Your task to perform on an android device: add a label to a message in the gmail app Image 0: 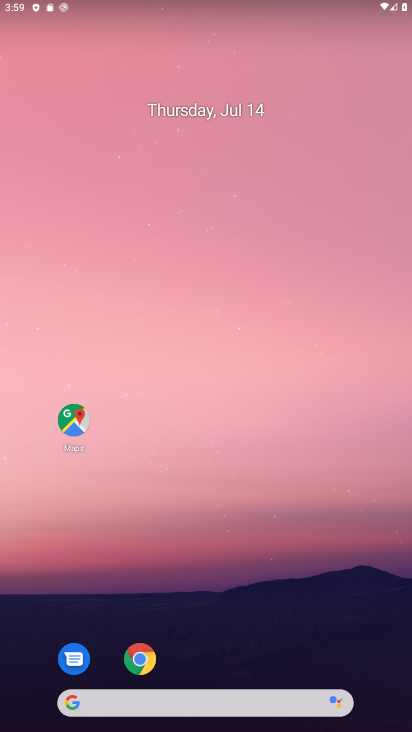
Step 0: drag from (264, 693) to (211, 132)
Your task to perform on an android device: add a label to a message in the gmail app Image 1: 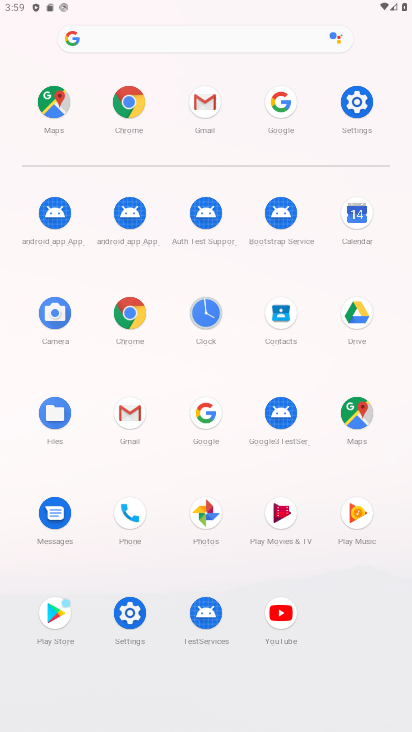
Step 1: click (125, 403)
Your task to perform on an android device: add a label to a message in the gmail app Image 2: 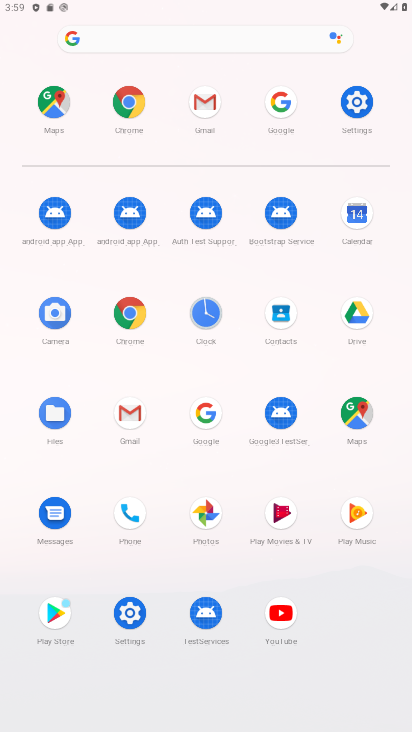
Step 2: click (127, 404)
Your task to perform on an android device: add a label to a message in the gmail app Image 3: 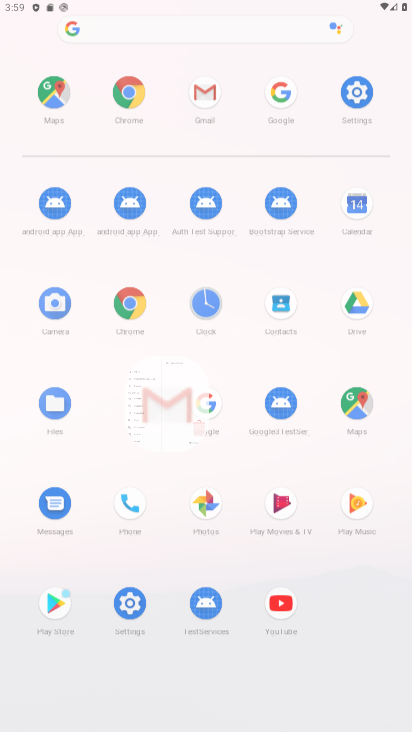
Step 3: click (127, 405)
Your task to perform on an android device: add a label to a message in the gmail app Image 4: 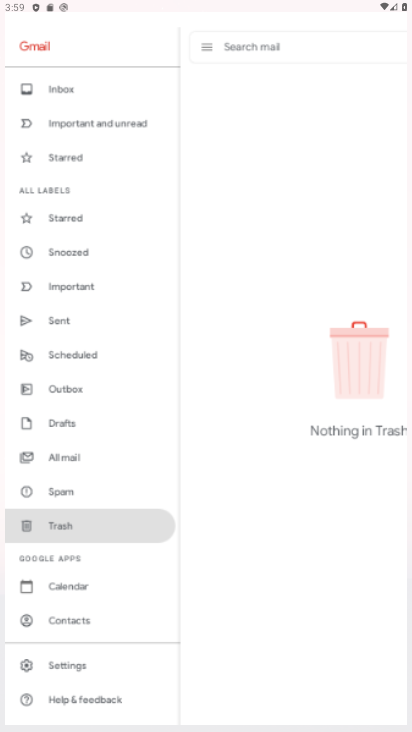
Step 4: click (127, 406)
Your task to perform on an android device: add a label to a message in the gmail app Image 5: 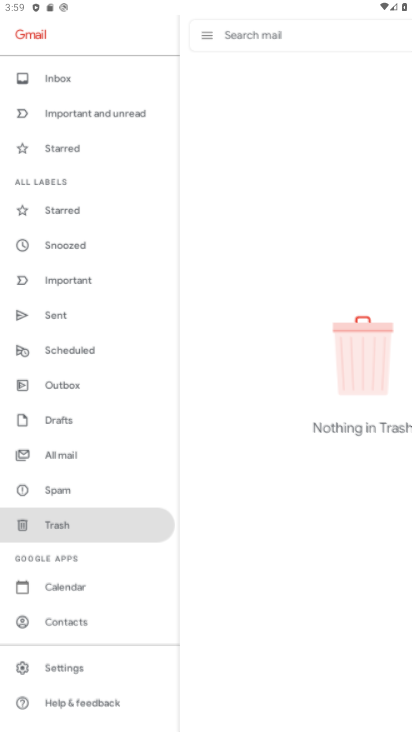
Step 5: click (128, 409)
Your task to perform on an android device: add a label to a message in the gmail app Image 6: 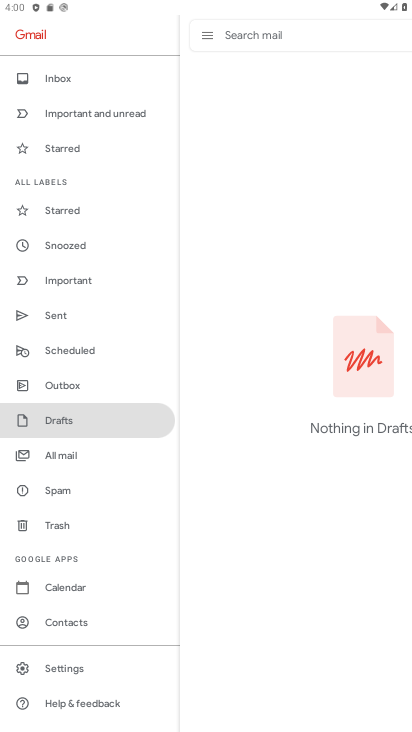
Step 6: click (55, 463)
Your task to perform on an android device: add a label to a message in the gmail app Image 7: 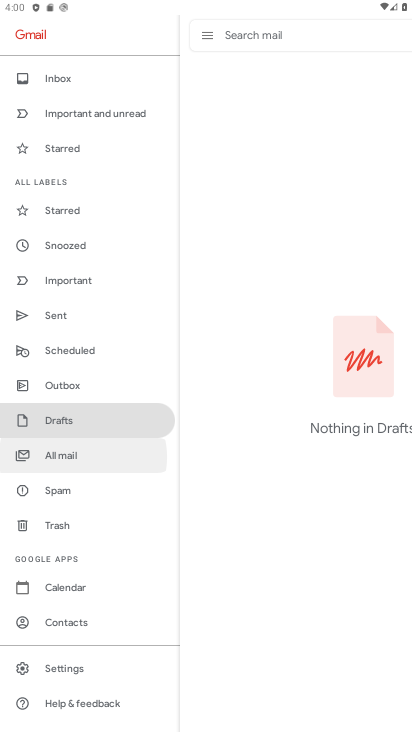
Step 7: click (55, 457)
Your task to perform on an android device: add a label to a message in the gmail app Image 8: 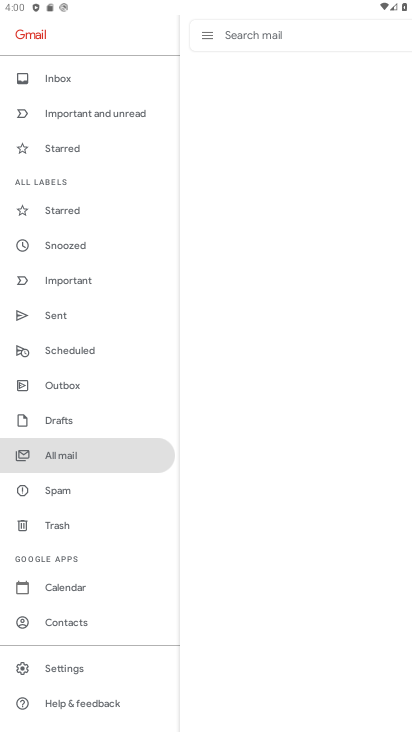
Step 8: click (57, 455)
Your task to perform on an android device: add a label to a message in the gmail app Image 9: 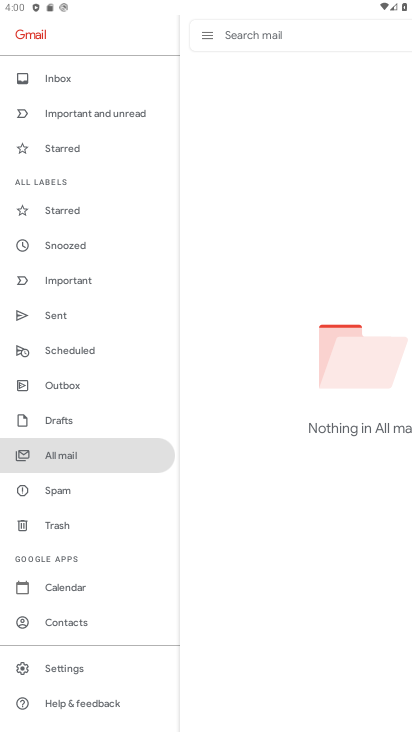
Step 9: task complete